Your task to perform on an android device: change your default location settings in chrome Image 0: 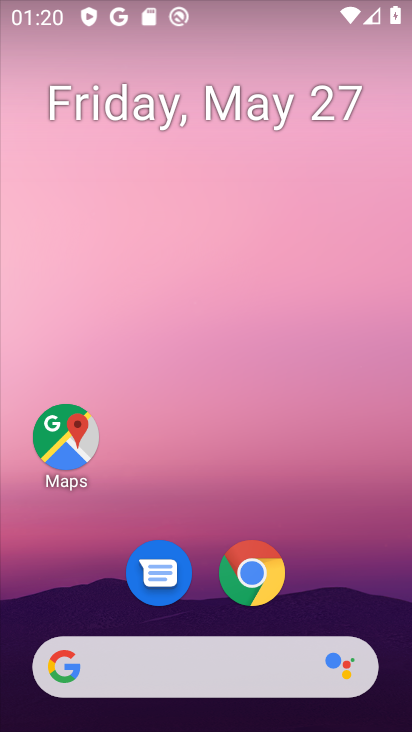
Step 0: drag from (214, 645) to (322, 729)
Your task to perform on an android device: change your default location settings in chrome Image 1: 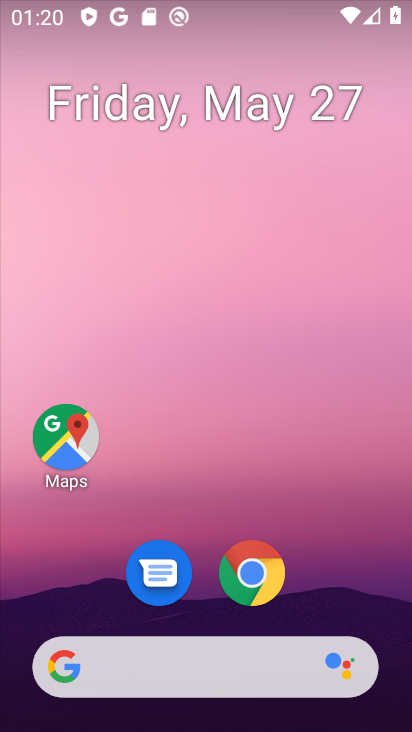
Step 1: click (233, 409)
Your task to perform on an android device: change your default location settings in chrome Image 2: 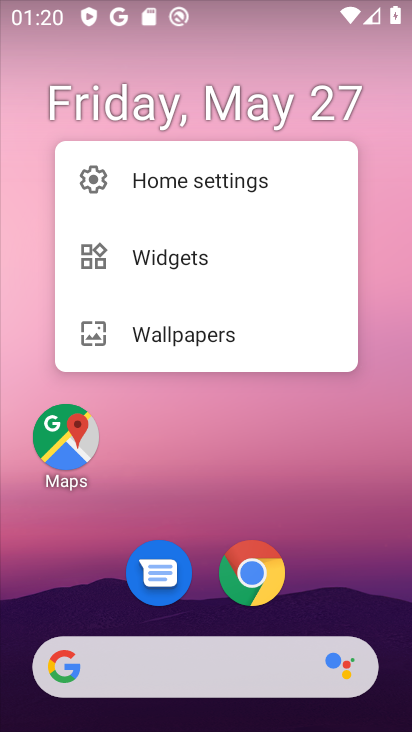
Step 2: click (262, 571)
Your task to perform on an android device: change your default location settings in chrome Image 3: 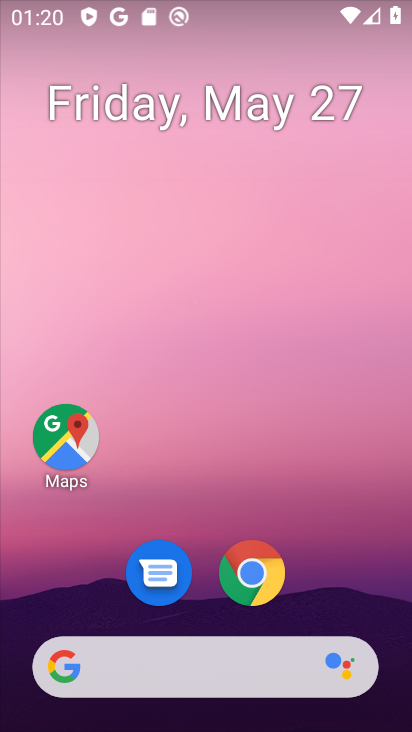
Step 3: click (239, 585)
Your task to perform on an android device: change your default location settings in chrome Image 4: 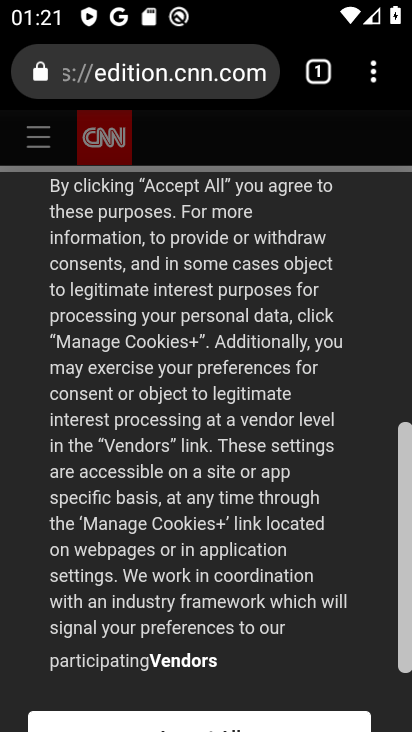
Step 4: click (380, 77)
Your task to perform on an android device: change your default location settings in chrome Image 5: 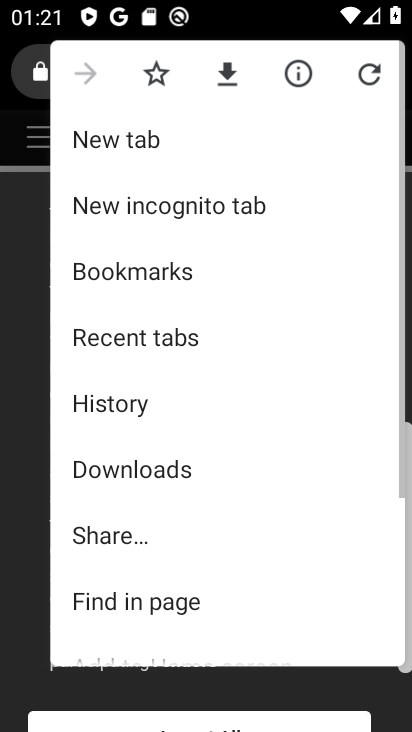
Step 5: drag from (194, 543) to (153, 96)
Your task to perform on an android device: change your default location settings in chrome Image 6: 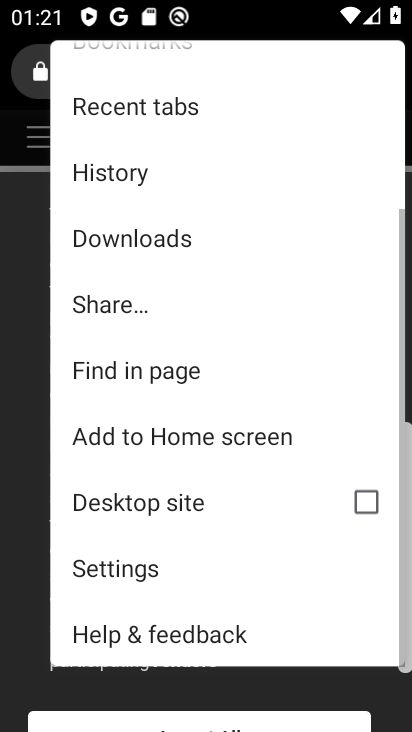
Step 6: click (96, 573)
Your task to perform on an android device: change your default location settings in chrome Image 7: 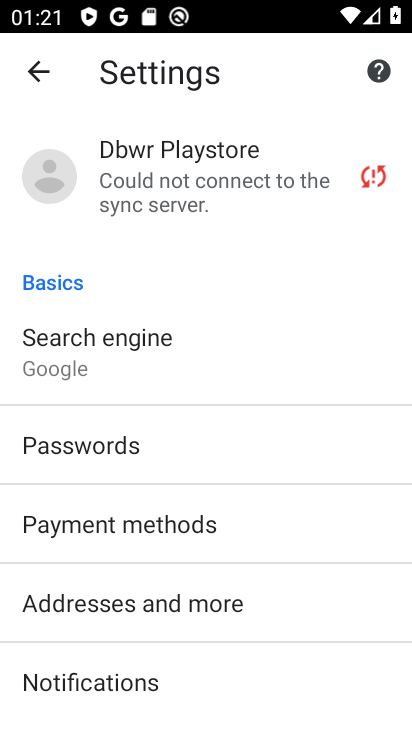
Step 7: drag from (166, 657) to (164, 213)
Your task to perform on an android device: change your default location settings in chrome Image 8: 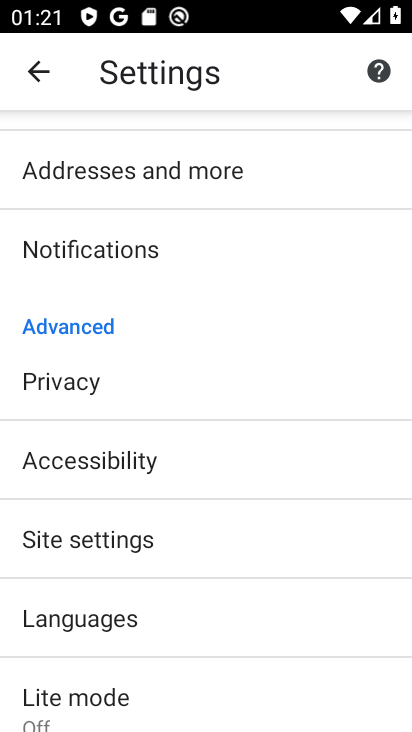
Step 8: drag from (114, 692) to (106, 363)
Your task to perform on an android device: change your default location settings in chrome Image 9: 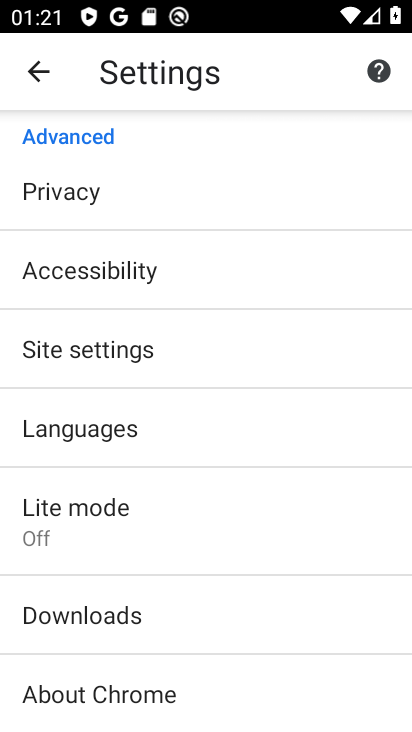
Step 9: click (98, 358)
Your task to perform on an android device: change your default location settings in chrome Image 10: 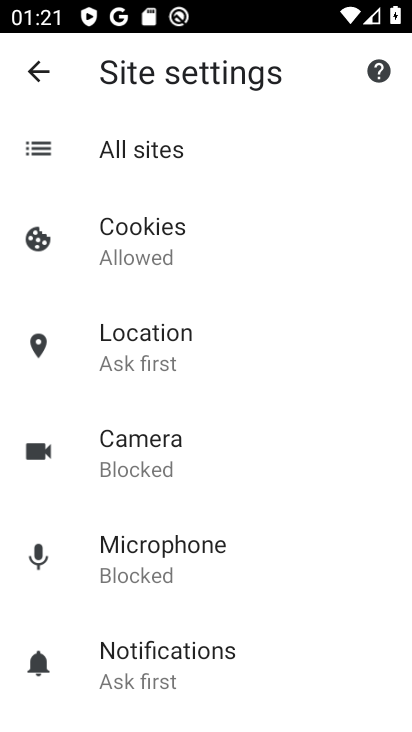
Step 10: click (166, 339)
Your task to perform on an android device: change your default location settings in chrome Image 11: 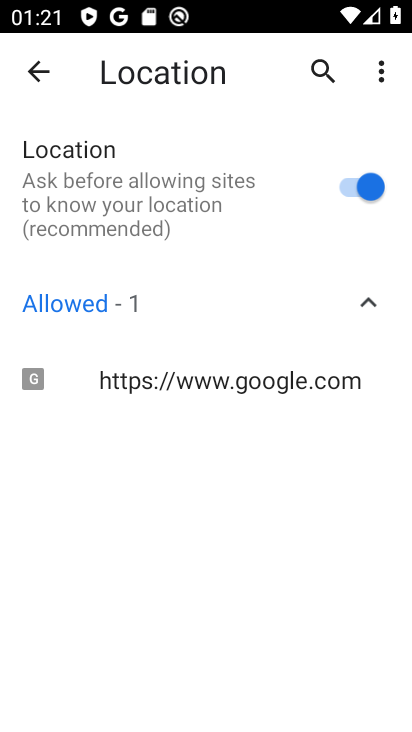
Step 11: click (351, 182)
Your task to perform on an android device: change your default location settings in chrome Image 12: 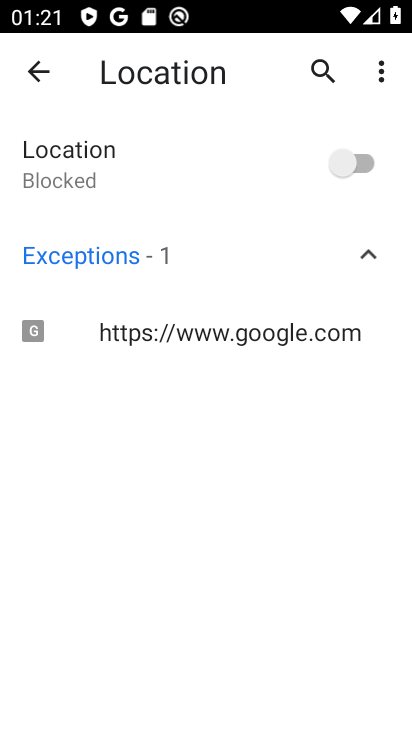
Step 12: task complete